Your task to perform on an android device: turn off location history Image 0: 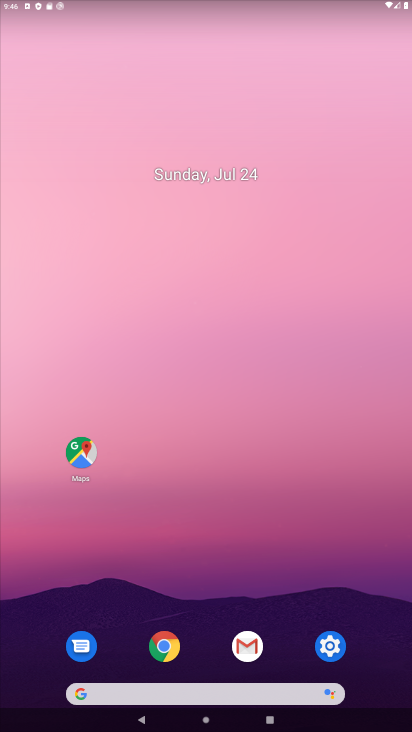
Step 0: click (316, 649)
Your task to perform on an android device: turn off location history Image 1: 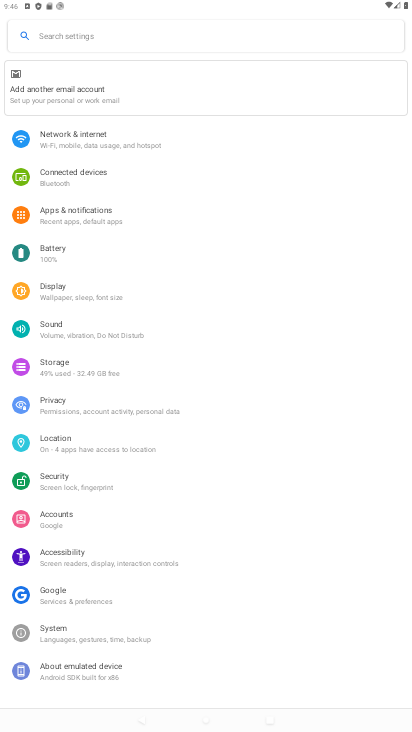
Step 1: click (74, 443)
Your task to perform on an android device: turn off location history Image 2: 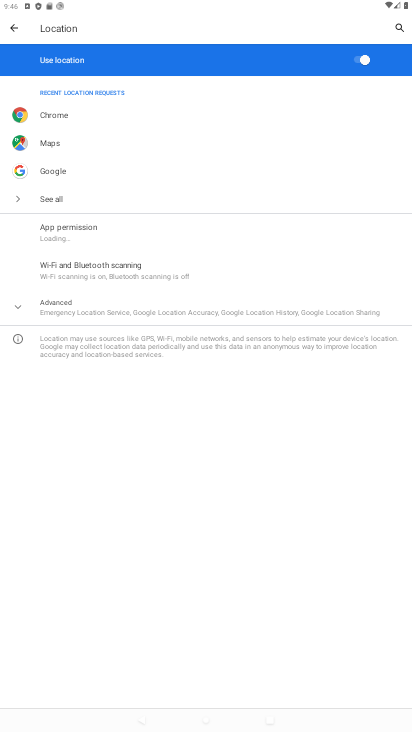
Step 2: click (345, 64)
Your task to perform on an android device: turn off location history Image 3: 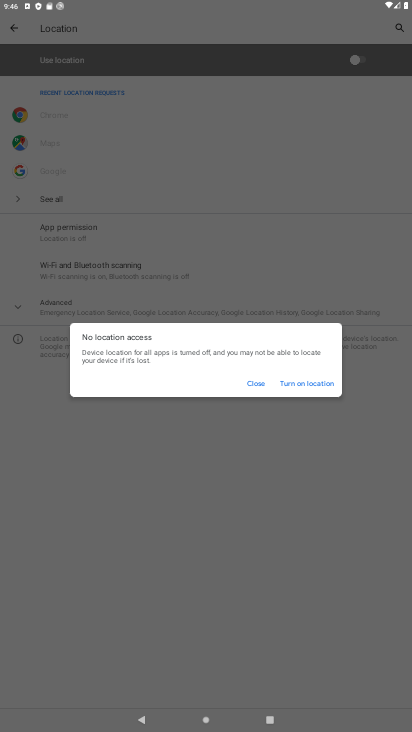
Step 3: task complete